Your task to perform on an android device: toggle pop-ups in chrome Image 0: 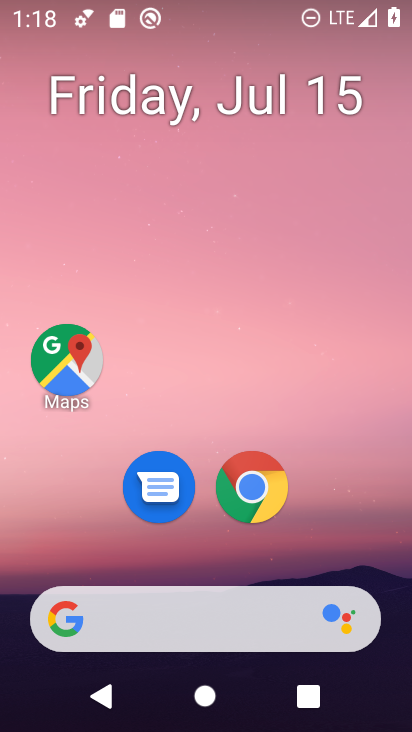
Step 0: drag from (196, 568) to (218, 73)
Your task to perform on an android device: toggle pop-ups in chrome Image 1: 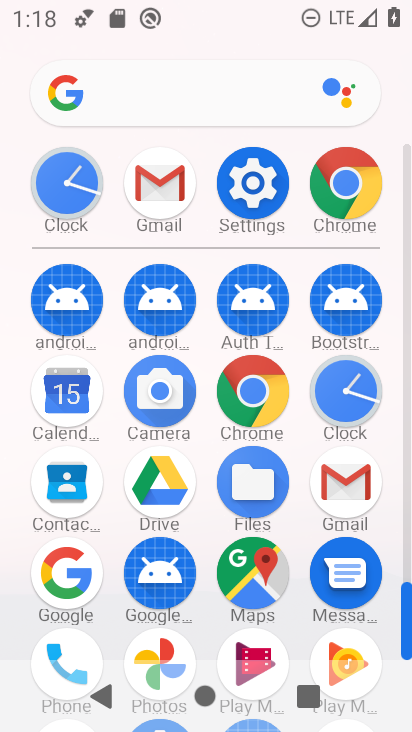
Step 1: click (344, 209)
Your task to perform on an android device: toggle pop-ups in chrome Image 2: 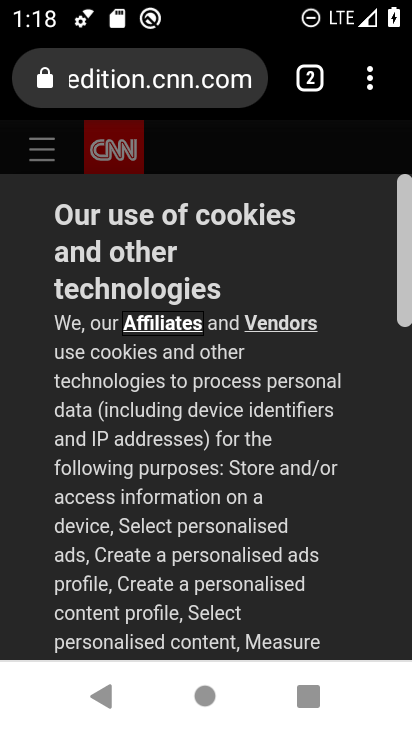
Step 2: click (361, 79)
Your task to perform on an android device: toggle pop-ups in chrome Image 3: 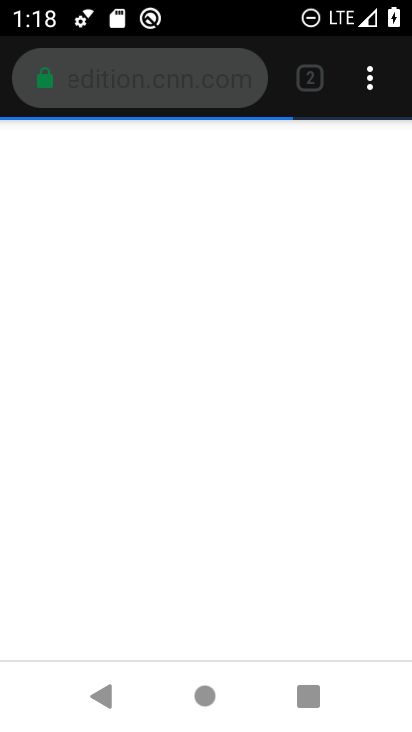
Step 3: click (368, 88)
Your task to perform on an android device: toggle pop-ups in chrome Image 4: 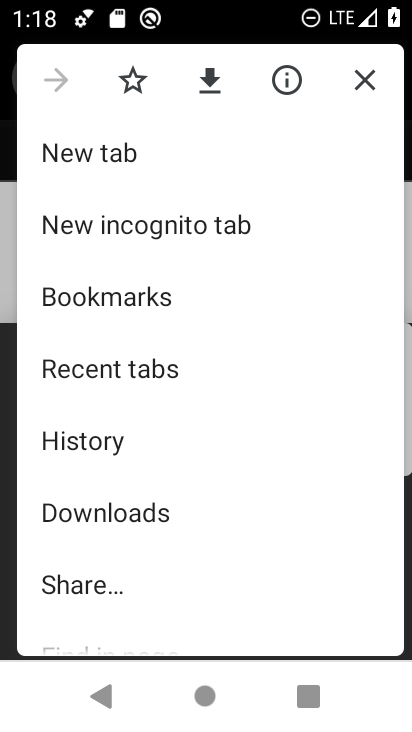
Step 4: drag from (192, 579) to (109, 278)
Your task to perform on an android device: toggle pop-ups in chrome Image 5: 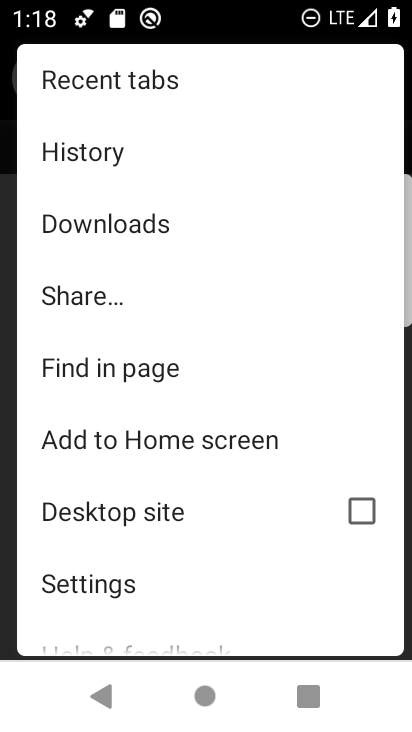
Step 5: click (116, 597)
Your task to perform on an android device: toggle pop-ups in chrome Image 6: 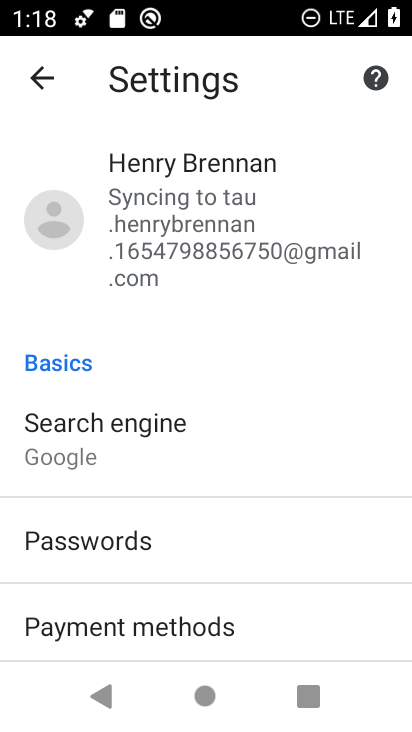
Step 6: drag from (120, 589) to (146, 189)
Your task to perform on an android device: toggle pop-ups in chrome Image 7: 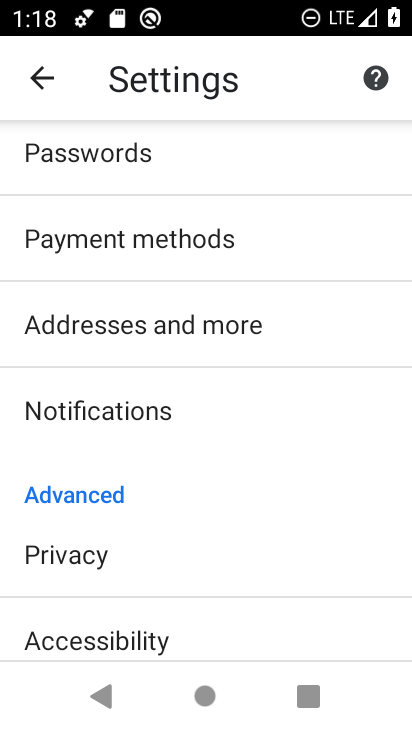
Step 7: drag from (158, 558) to (159, 248)
Your task to perform on an android device: toggle pop-ups in chrome Image 8: 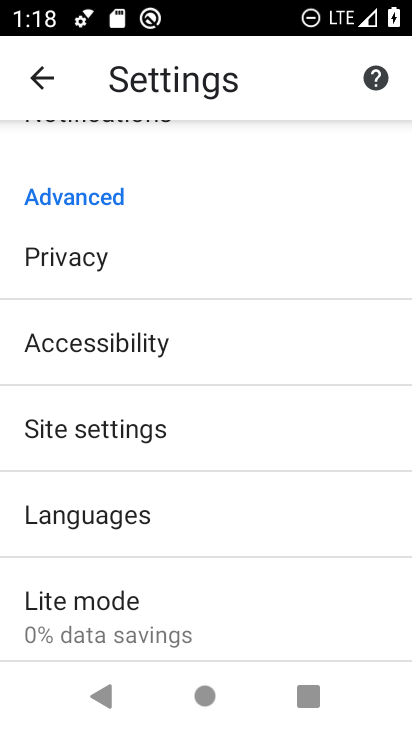
Step 8: click (124, 441)
Your task to perform on an android device: toggle pop-ups in chrome Image 9: 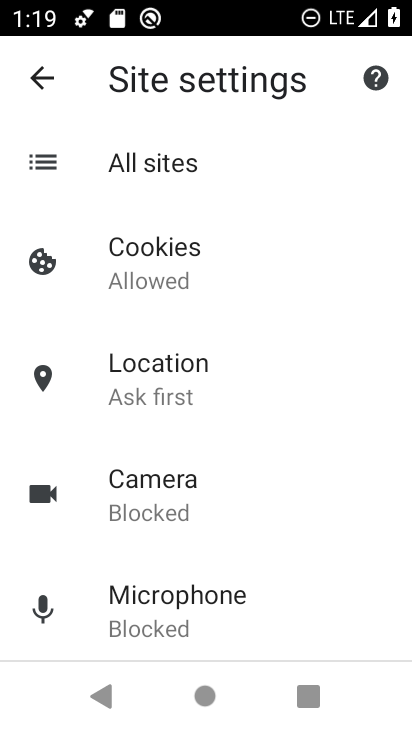
Step 9: drag from (116, 549) to (163, 136)
Your task to perform on an android device: toggle pop-ups in chrome Image 10: 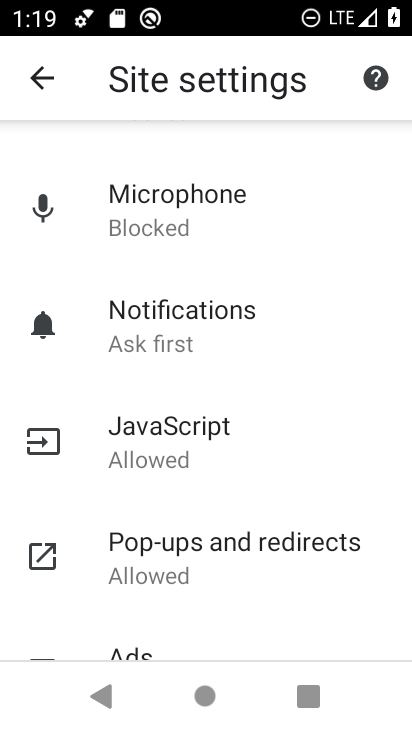
Step 10: drag from (150, 544) to (166, 187)
Your task to perform on an android device: toggle pop-ups in chrome Image 11: 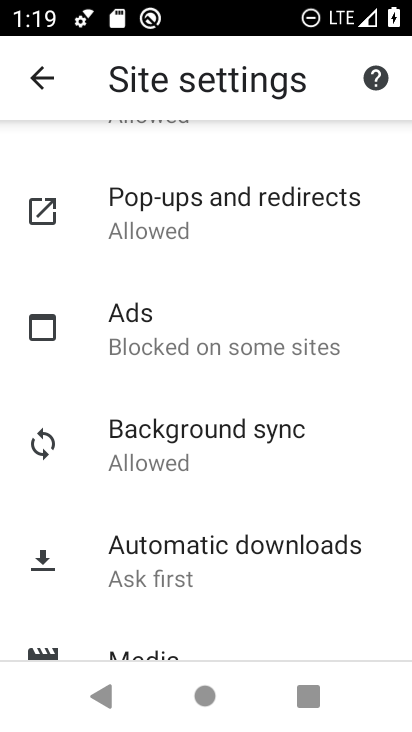
Step 11: click (222, 218)
Your task to perform on an android device: toggle pop-ups in chrome Image 12: 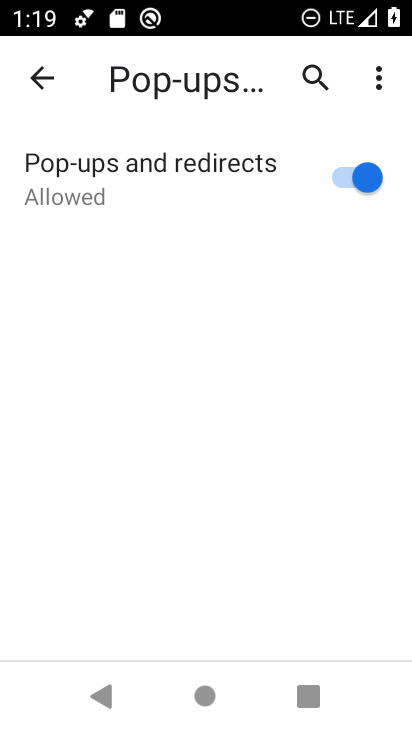
Step 12: task complete